Your task to perform on an android device: Open privacy settings Image 0: 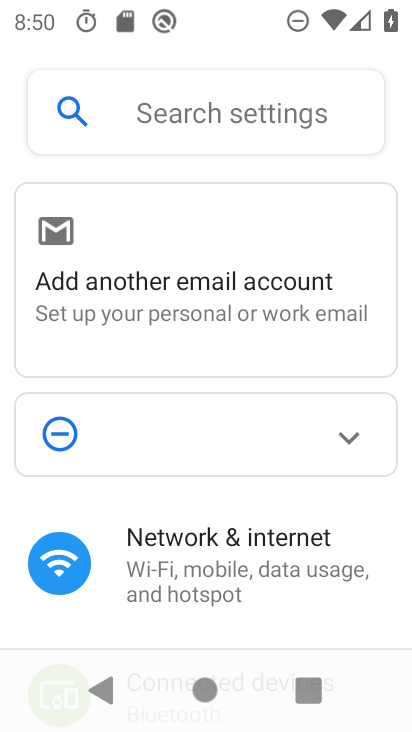
Step 0: press home button
Your task to perform on an android device: Open privacy settings Image 1: 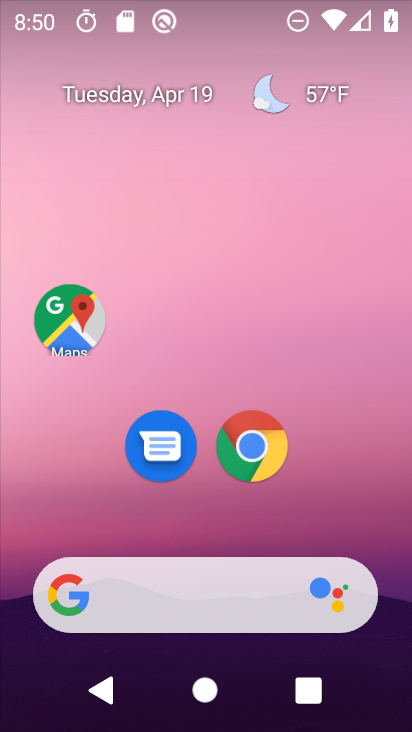
Step 1: click (256, 451)
Your task to perform on an android device: Open privacy settings Image 2: 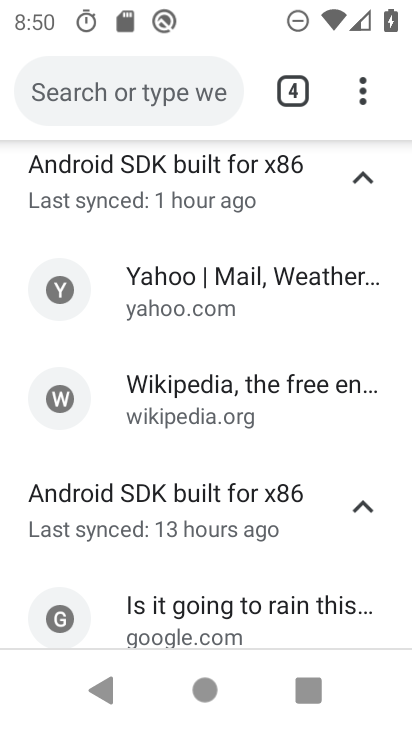
Step 2: click (362, 92)
Your task to perform on an android device: Open privacy settings Image 3: 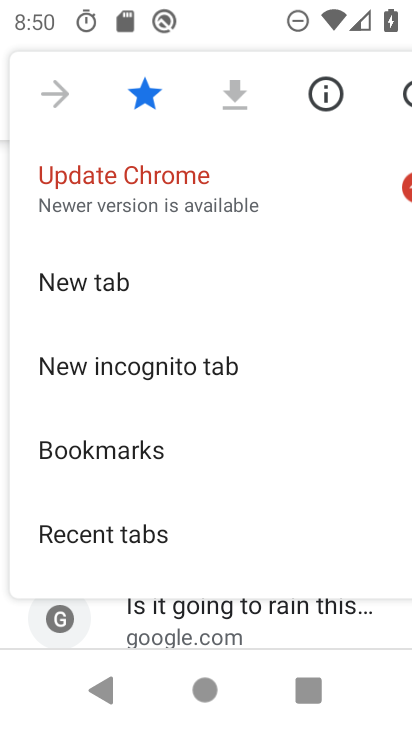
Step 3: drag from (220, 530) to (204, 156)
Your task to perform on an android device: Open privacy settings Image 4: 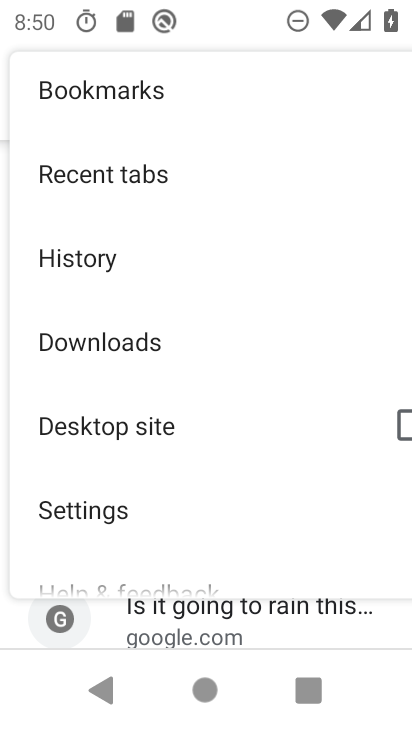
Step 4: click (58, 512)
Your task to perform on an android device: Open privacy settings Image 5: 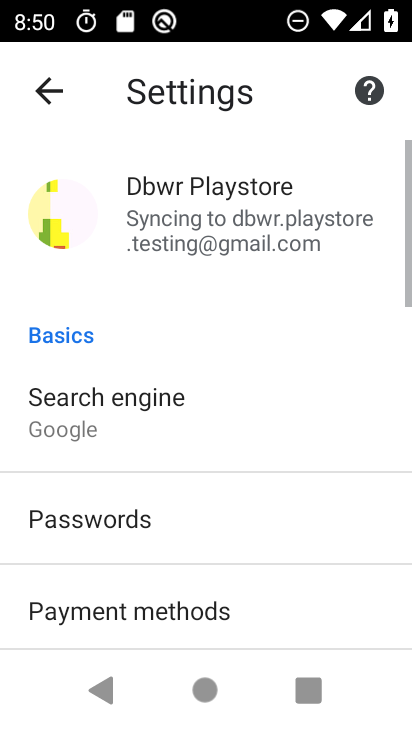
Step 5: drag from (97, 553) to (199, 67)
Your task to perform on an android device: Open privacy settings Image 6: 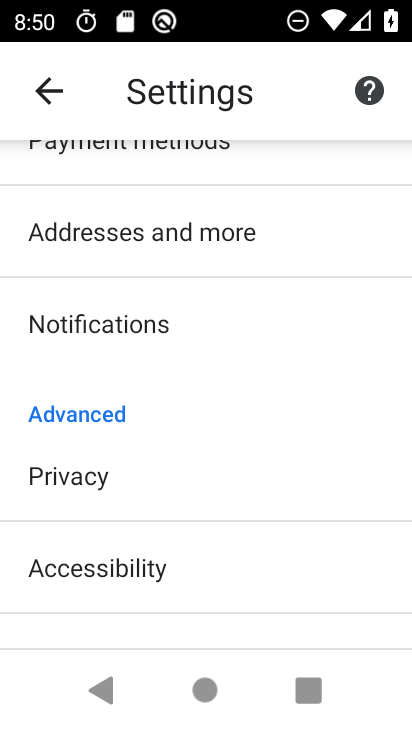
Step 6: click (65, 477)
Your task to perform on an android device: Open privacy settings Image 7: 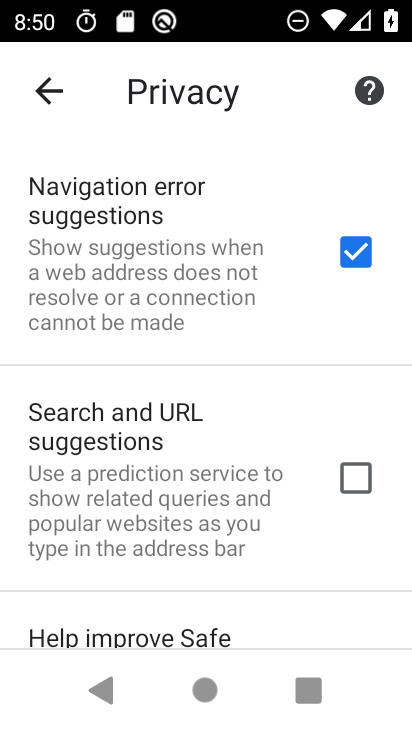
Step 7: task complete